Your task to perform on an android device: Go to Android settings Image 0: 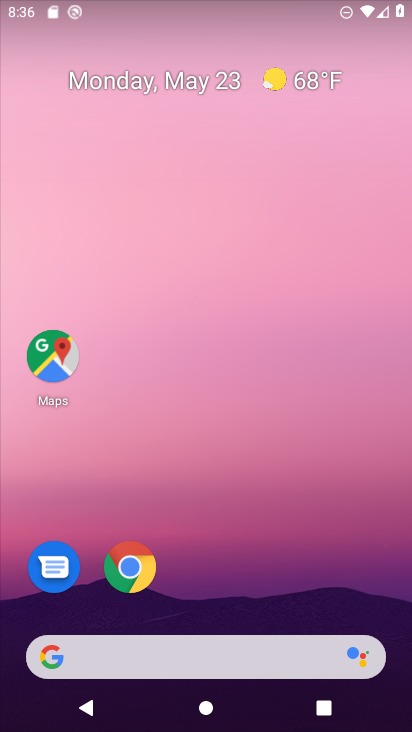
Step 0: click (236, 184)
Your task to perform on an android device: Go to Android settings Image 1: 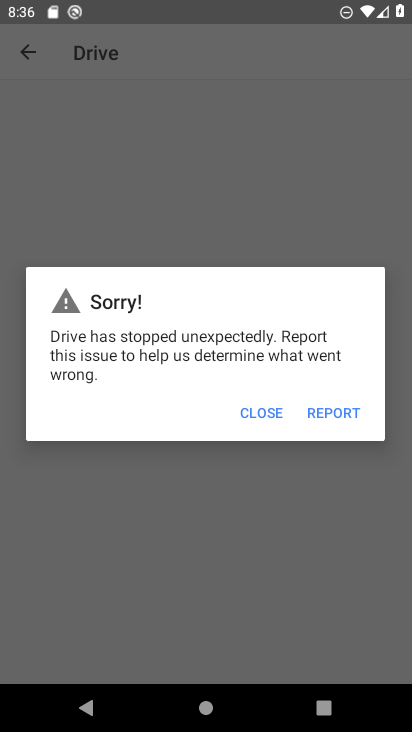
Step 1: press home button
Your task to perform on an android device: Go to Android settings Image 2: 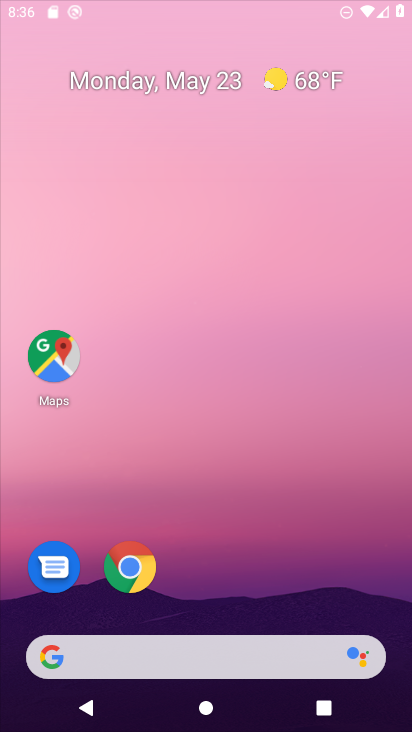
Step 2: drag from (216, 558) to (286, 57)
Your task to perform on an android device: Go to Android settings Image 3: 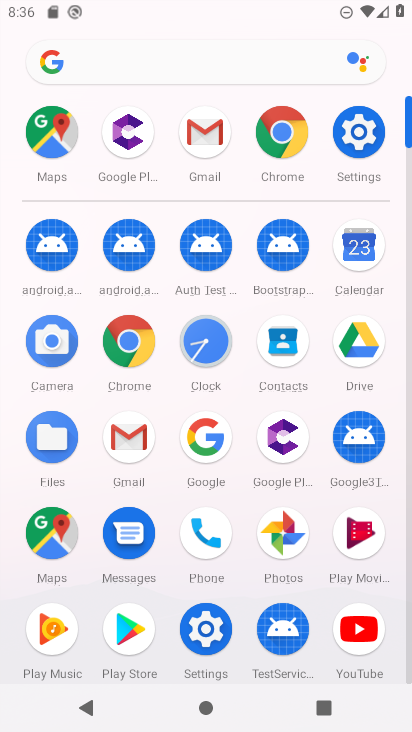
Step 3: click (354, 124)
Your task to perform on an android device: Go to Android settings Image 4: 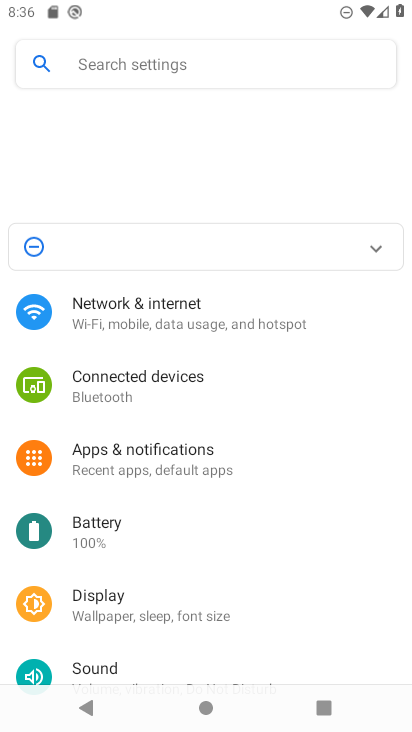
Step 4: drag from (203, 571) to (357, 35)
Your task to perform on an android device: Go to Android settings Image 5: 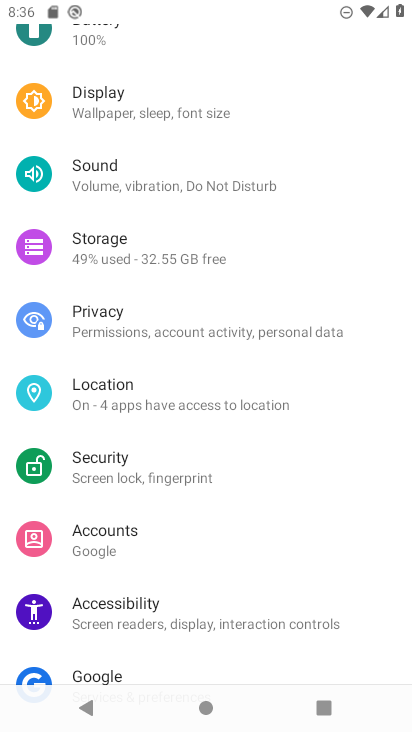
Step 5: drag from (191, 571) to (339, 42)
Your task to perform on an android device: Go to Android settings Image 6: 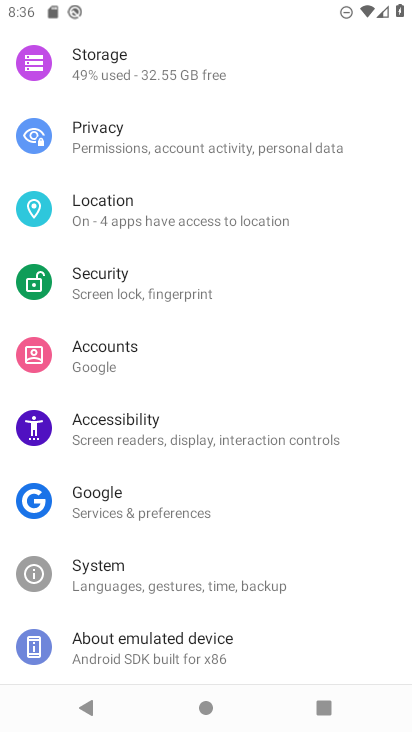
Step 6: click (153, 641)
Your task to perform on an android device: Go to Android settings Image 7: 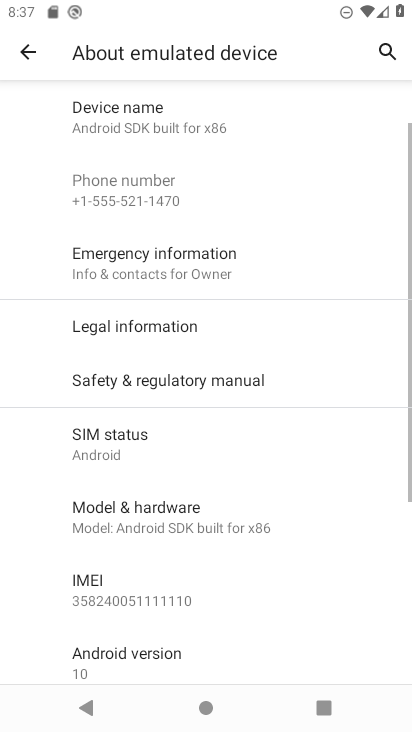
Step 7: drag from (179, 591) to (277, 95)
Your task to perform on an android device: Go to Android settings Image 8: 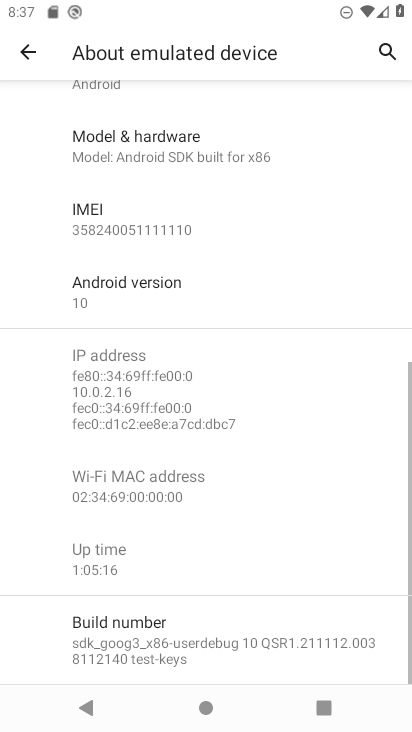
Step 8: click (159, 283)
Your task to perform on an android device: Go to Android settings Image 9: 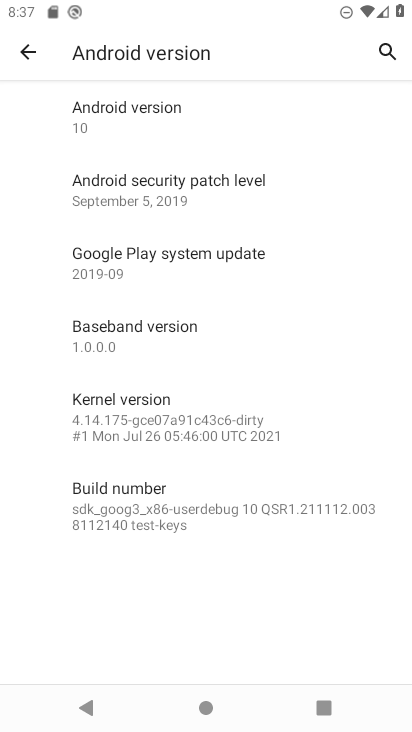
Step 9: drag from (166, 599) to (251, 145)
Your task to perform on an android device: Go to Android settings Image 10: 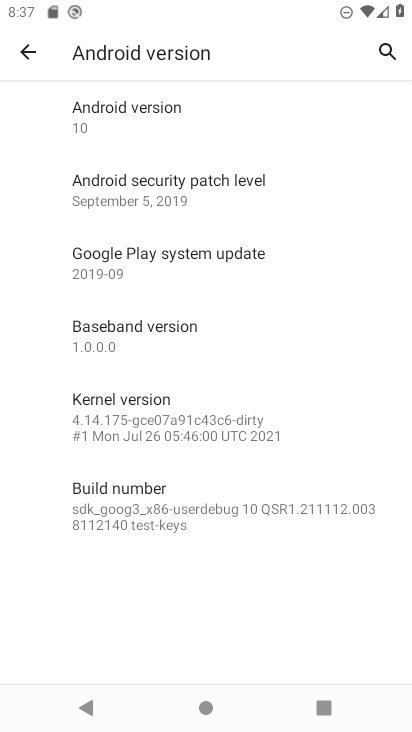
Step 10: click (167, 104)
Your task to perform on an android device: Go to Android settings Image 11: 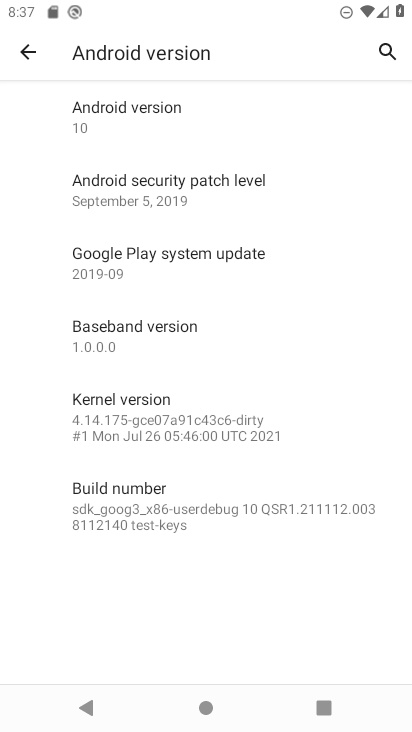
Step 11: task complete